Your task to perform on an android device: turn off data saver in the chrome app Image 0: 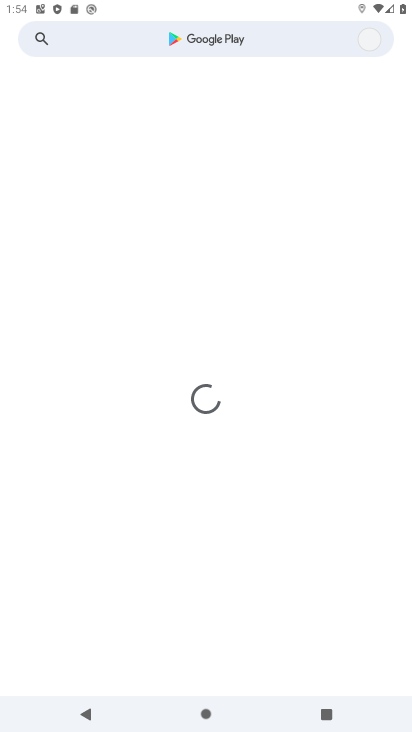
Step 0: press home button
Your task to perform on an android device: turn off data saver in the chrome app Image 1: 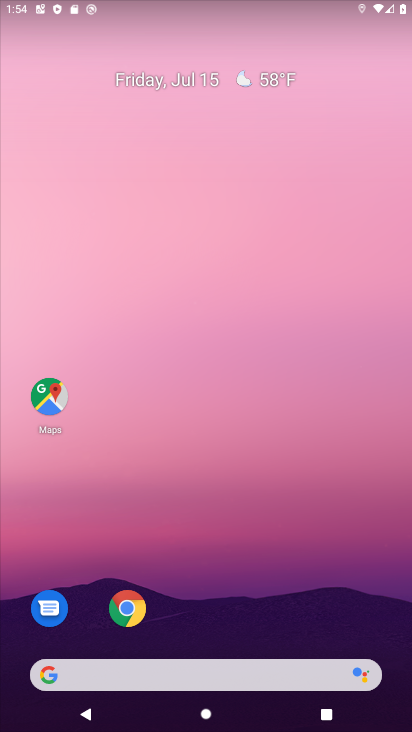
Step 1: drag from (246, 630) to (296, 161)
Your task to perform on an android device: turn off data saver in the chrome app Image 2: 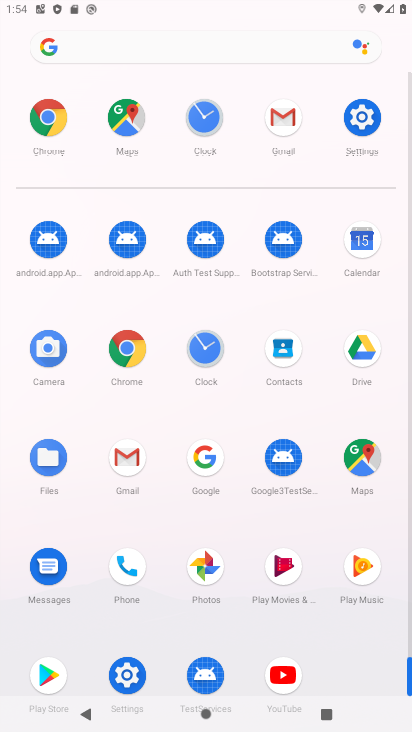
Step 2: click (126, 354)
Your task to perform on an android device: turn off data saver in the chrome app Image 3: 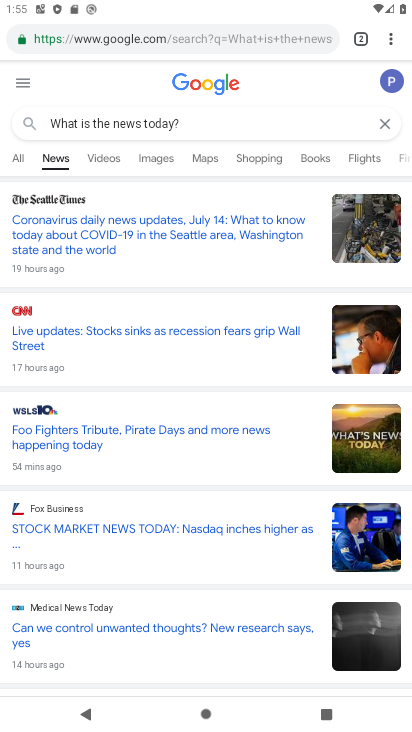
Step 3: drag from (393, 40) to (273, 441)
Your task to perform on an android device: turn off data saver in the chrome app Image 4: 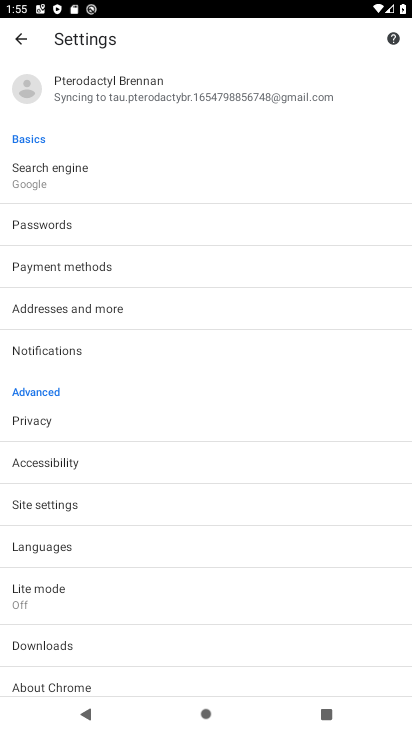
Step 4: drag from (131, 618) to (116, 289)
Your task to perform on an android device: turn off data saver in the chrome app Image 5: 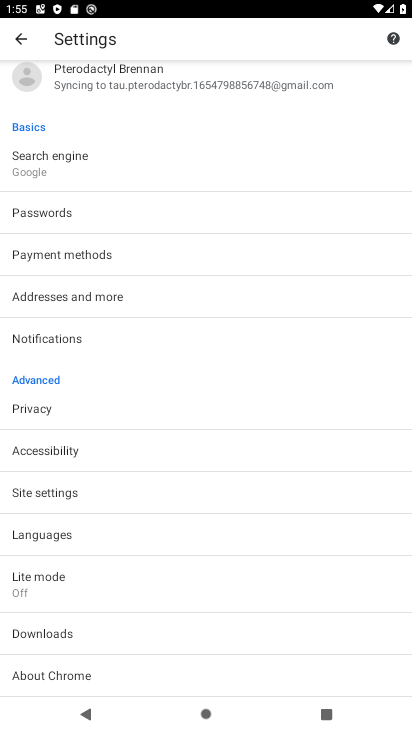
Step 5: click (48, 582)
Your task to perform on an android device: turn off data saver in the chrome app Image 6: 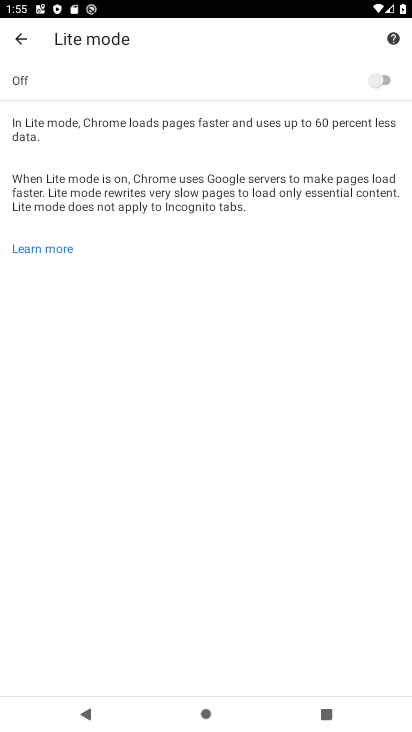
Step 6: click (335, 76)
Your task to perform on an android device: turn off data saver in the chrome app Image 7: 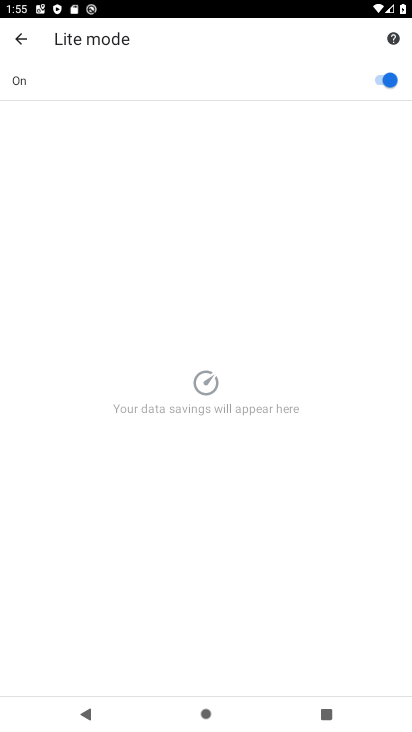
Step 7: click (315, 91)
Your task to perform on an android device: turn off data saver in the chrome app Image 8: 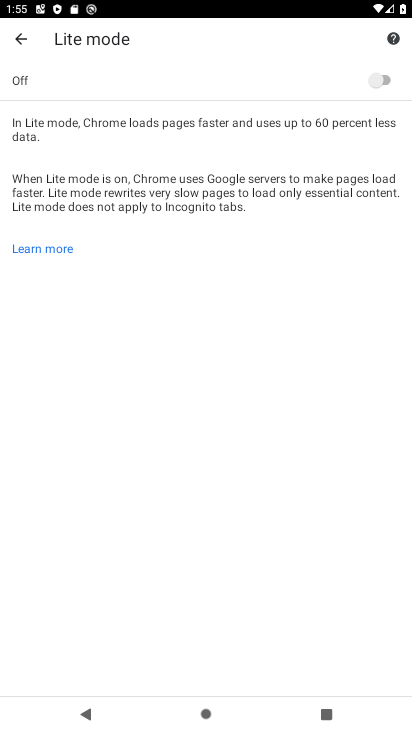
Step 8: task complete